Your task to perform on an android device: Do I have any events tomorrow? Image 0: 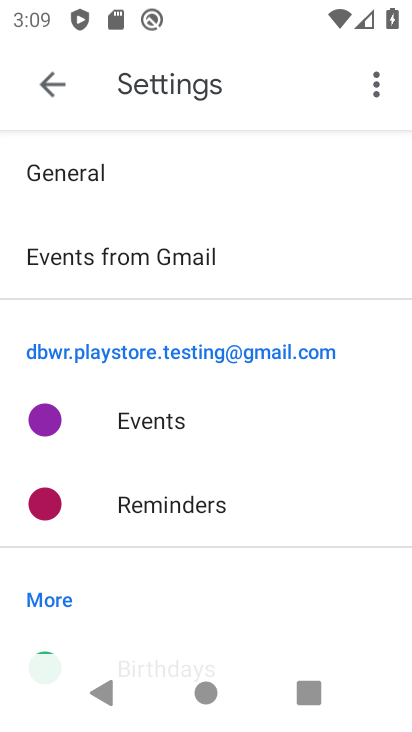
Step 0: press home button
Your task to perform on an android device: Do I have any events tomorrow? Image 1: 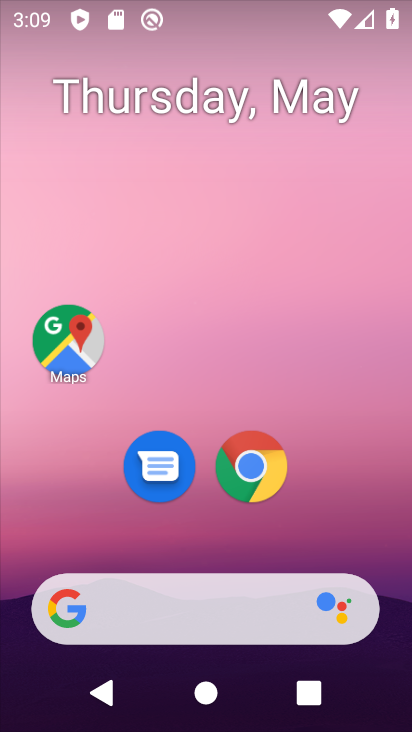
Step 1: drag from (395, 575) to (300, 165)
Your task to perform on an android device: Do I have any events tomorrow? Image 2: 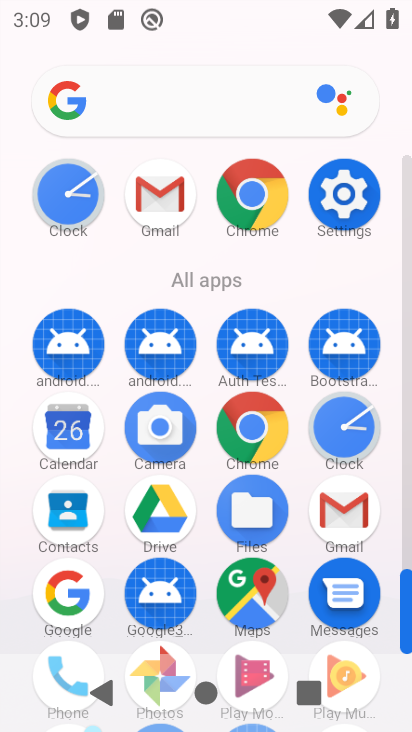
Step 2: click (71, 444)
Your task to perform on an android device: Do I have any events tomorrow? Image 3: 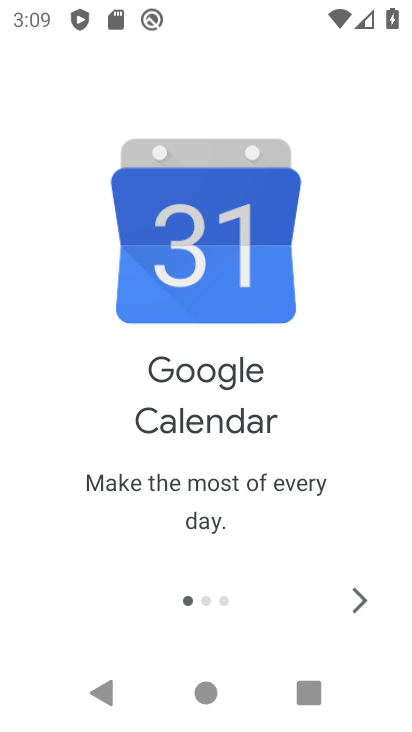
Step 3: click (374, 605)
Your task to perform on an android device: Do I have any events tomorrow? Image 4: 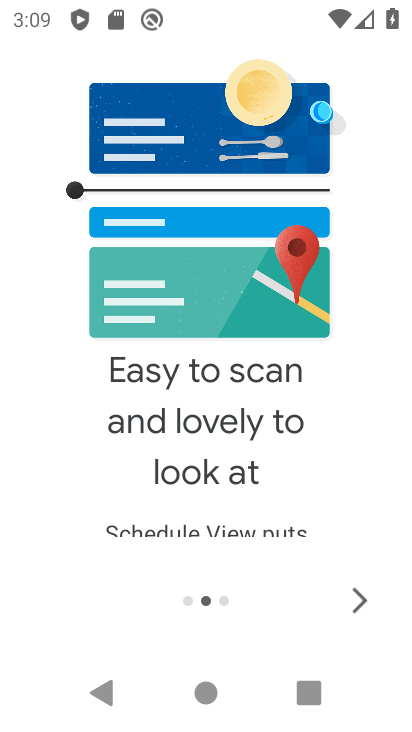
Step 4: click (373, 605)
Your task to perform on an android device: Do I have any events tomorrow? Image 5: 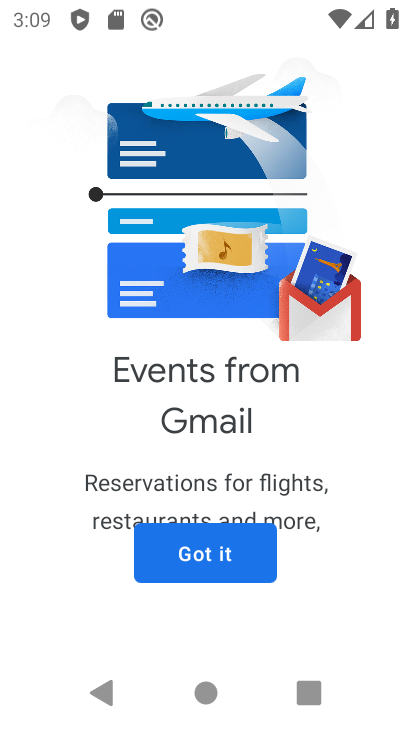
Step 5: click (252, 561)
Your task to perform on an android device: Do I have any events tomorrow? Image 6: 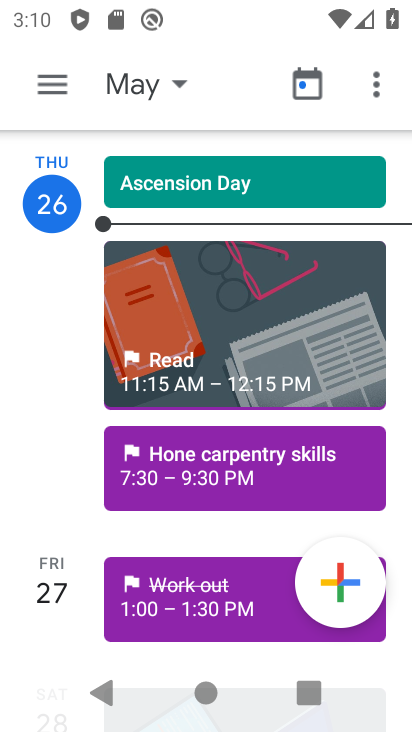
Step 6: click (46, 79)
Your task to perform on an android device: Do I have any events tomorrow? Image 7: 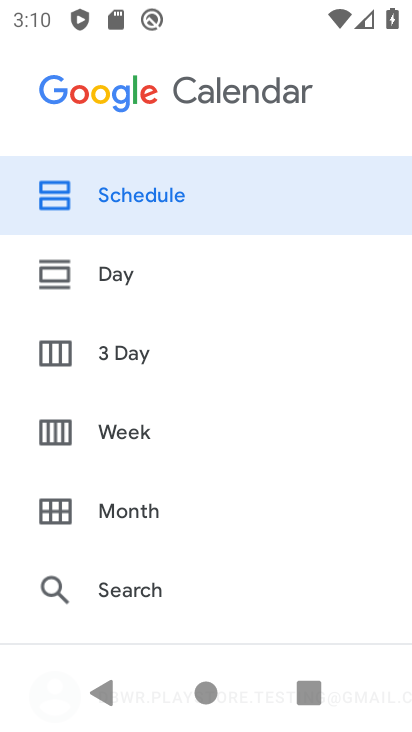
Step 7: drag from (162, 565) to (185, 168)
Your task to perform on an android device: Do I have any events tomorrow? Image 8: 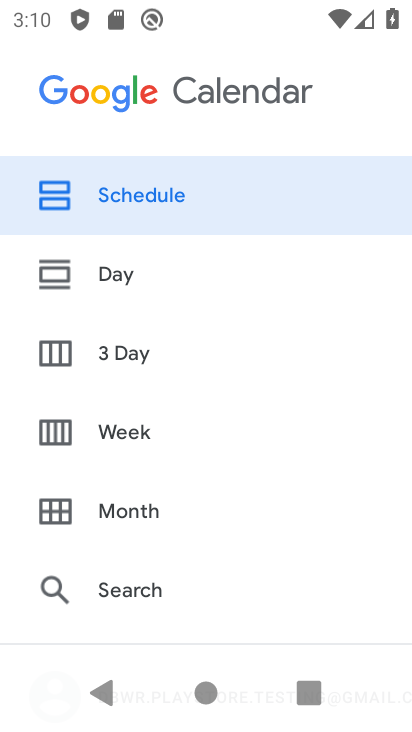
Step 8: drag from (151, 612) to (123, 315)
Your task to perform on an android device: Do I have any events tomorrow? Image 9: 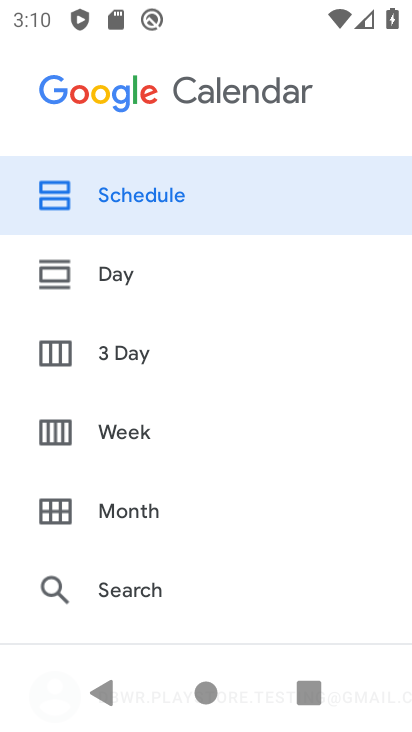
Step 9: drag from (120, 533) to (132, 158)
Your task to perform on an android device: Do I have any events tomorrow? Image 10: 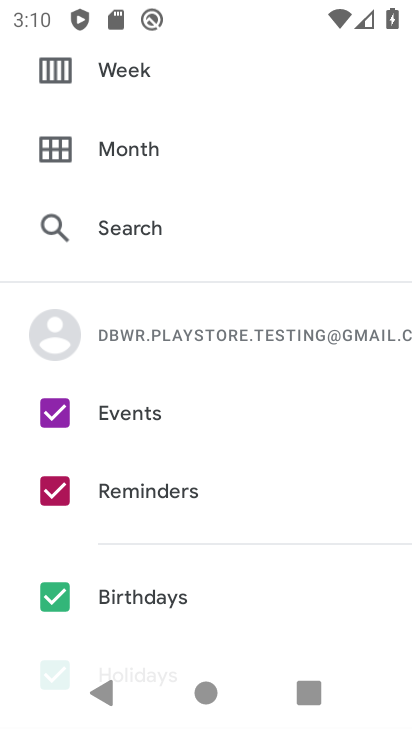
Step 10: drag from (113, 571) to (124, 205)
Your task to perform on an android device: Do I have any events tomorrow? Image 11: 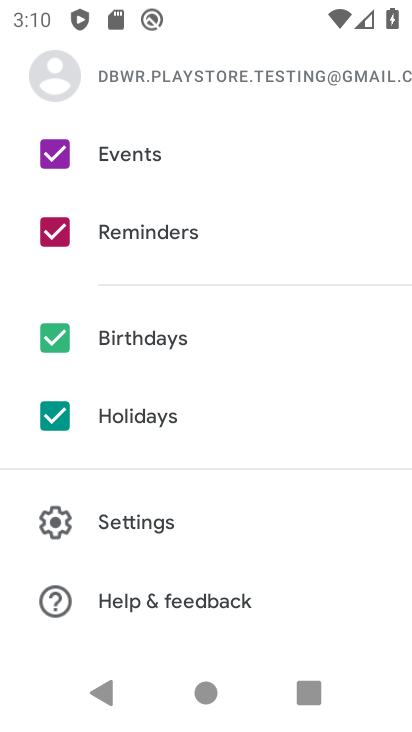
Step 11: click (57, 416)
Your task to perform on an android device: Do I have any events tomorrow? Image 12: 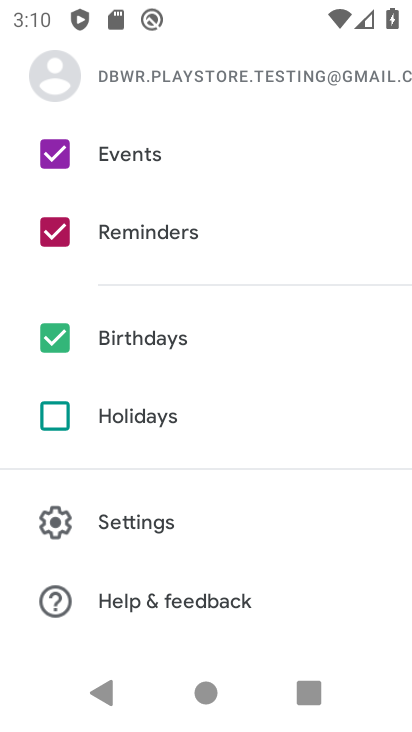
Step 12: click (50, 342)
Your task to perform on an android device: Do I have any events tomorrow? Image 13: 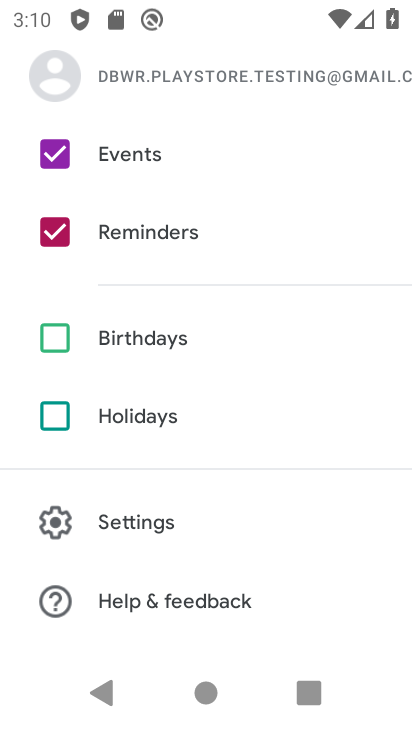
Step 13: click (51, 230)
Your task to perform on an android device: Do I have any events tomorrow? Image 14: 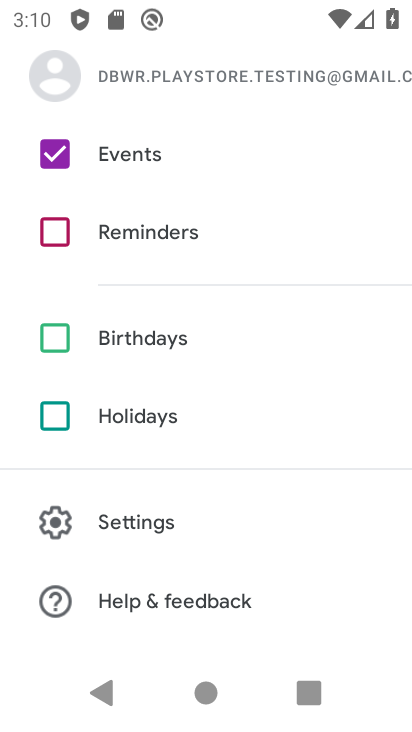
Step 14: drag from (136, 102) to (200, 534)
Your task to perform on an android device: Do I have any events tomorrow? Image 15: 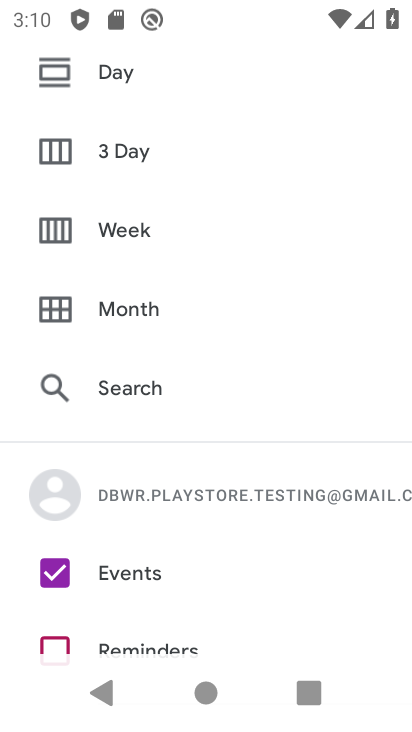
Step 15: click (105, 77)
Your task to perform on an android device: Do I have any events tomorrow? Image 16: 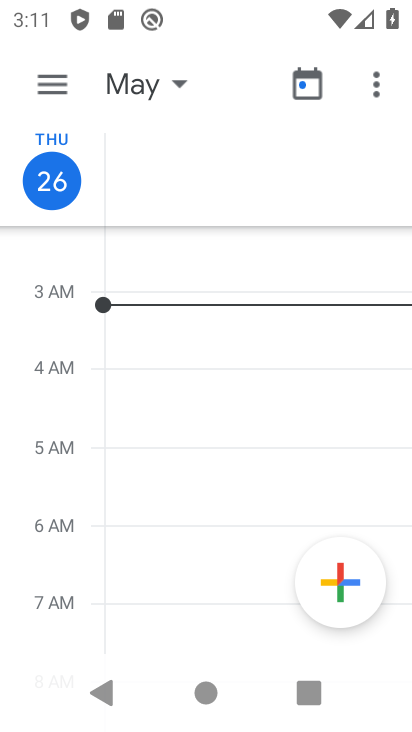
Step 16: click (170, 91)
Your task to perform on an android device: Do I have any events tomorrow? Image 17: 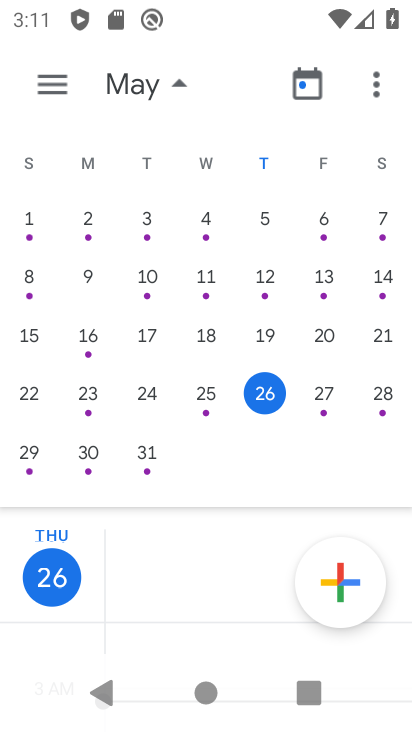
Step 17: click (332, 383)
Your task to perform on an android device: Do I have any events tomorrow? Image 18: 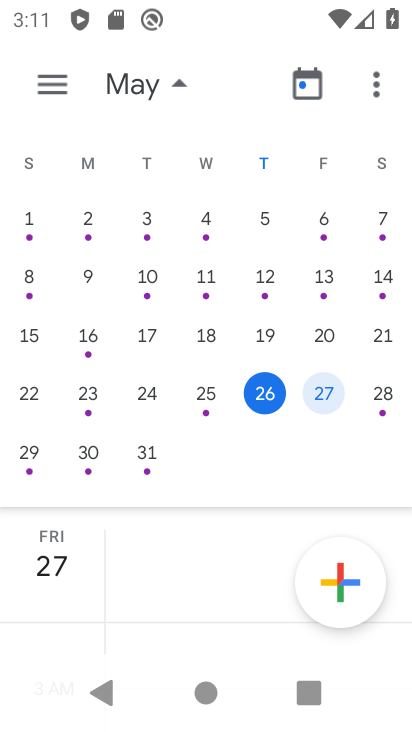
Step 18: task complete